Your task to perform on an android device: turn off notifications settings in the gmail app Image 0: 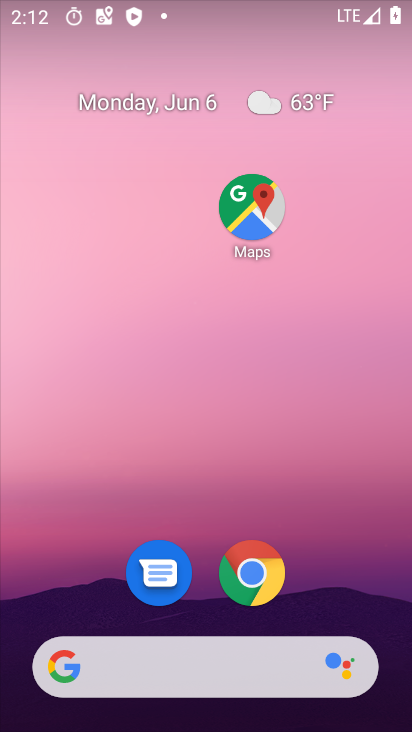
Step 0: press home button
Your task to perform on an android device: turn off notifications settings in the gmail app Image 1: 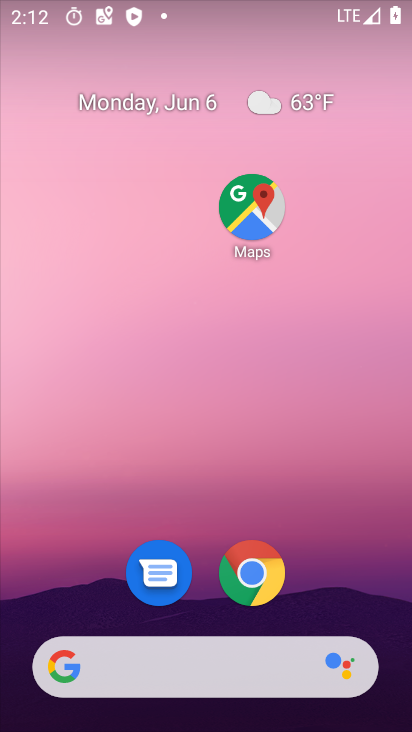
Step 1: drag from (18, 601) to (107, 171)
Your task to perform on an android device: turn off notifications settings in the gmail app Image 2: 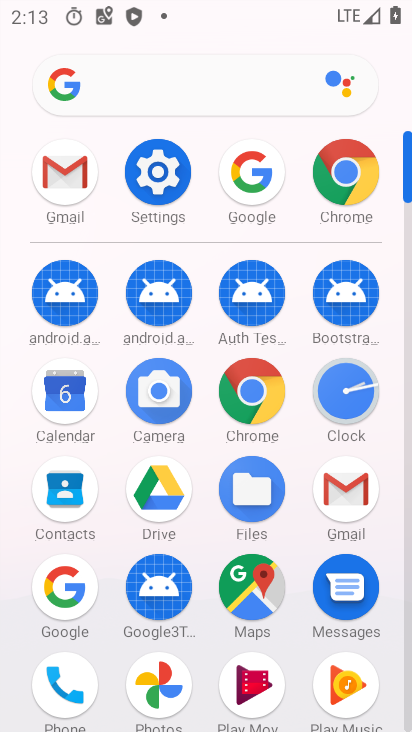
Step 2: click (345, 500)
Your task to perform on an android device: turn off notifications settings in the gmail app Image 3: 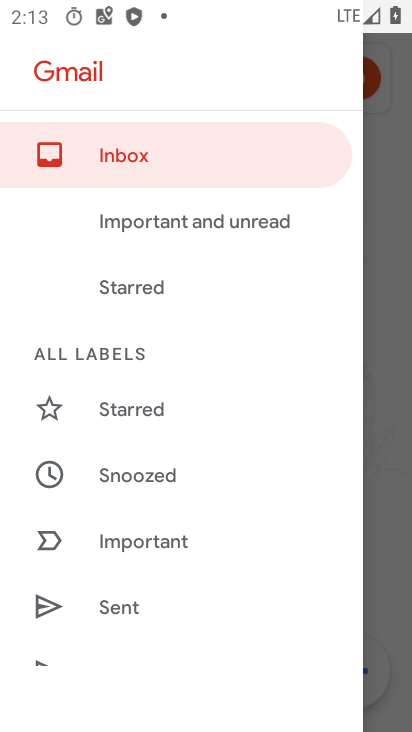
Step 3: drag from (4, 640) to (158, 183)
Your task to perform on an android device: turn off notifications settings in the gmail app Image 4: 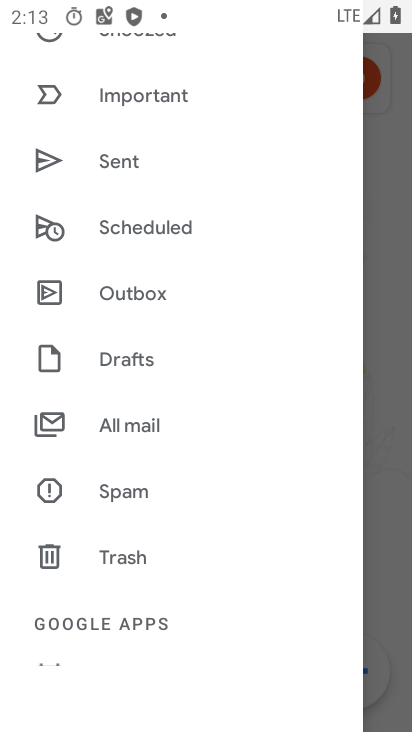
Step 4: drag from (1, 678) to (193, 202)
Your task to perform on an android device: turn off notifications settings in the gmail app Image 5: 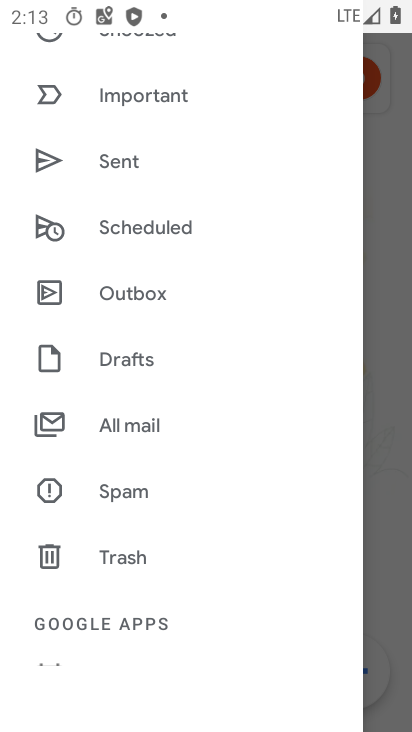
Step 5: drag from (6, 540) to (236, 181)
Your task to perform on an android device: turn off notifications settings in the gmail app Image 6: 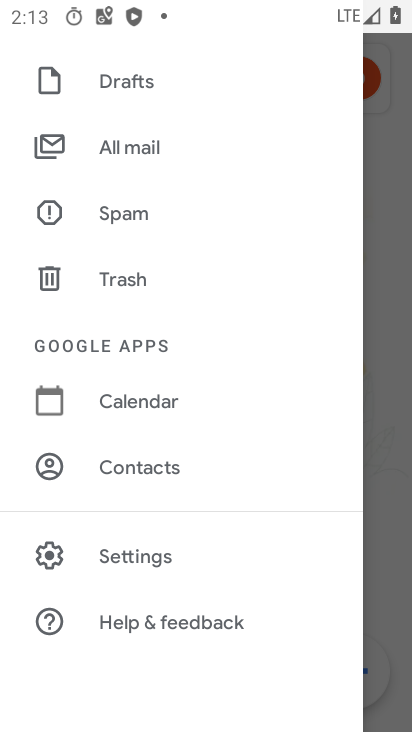
Step 6: click (92, 558)
Your task to perform on an android device: turn off notifications settings in the gmail app Image 7: 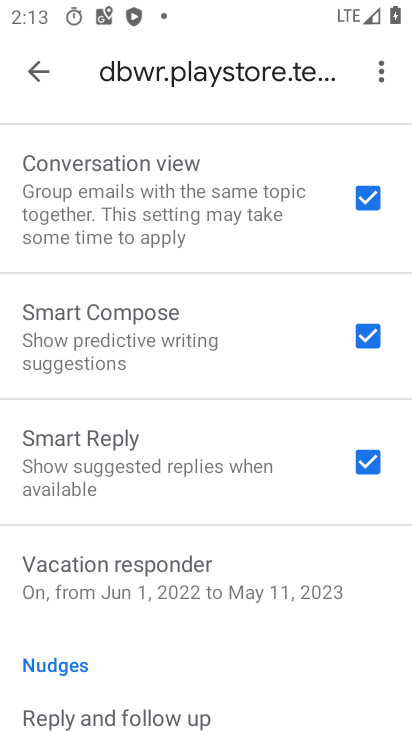
Step 7: drag from (0, 607) to (163, 173)
Your task to perform on an android device: turn off notifications settings in the gmail app Image 8: 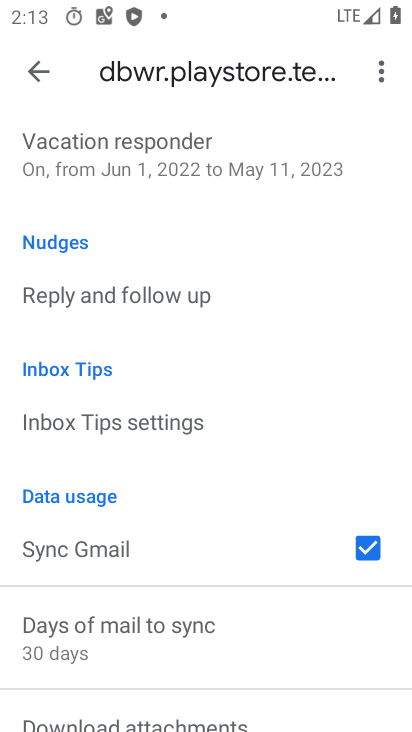
Step 8: drag from (11, 501) to (185, 163)
Your task to perform on an android device: turn off notifications settings in the gmail app Image 9: 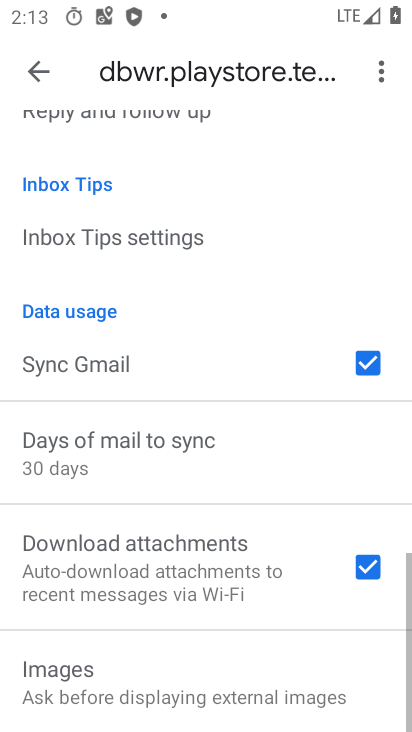
Step 9: drag from (147, 216) to (292, 724)
Your task to perform on an android device: turn off notifications settings in the gmail app Image 10: 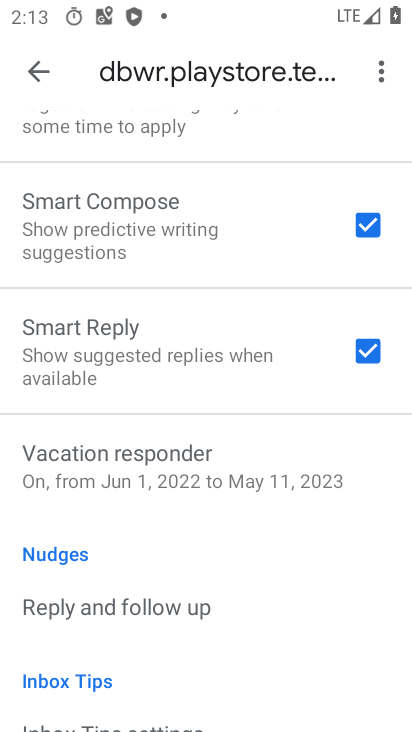
Step 10: press back button
Your task to perform on an android device: turn off notifications settings in the gmail app Image 11: 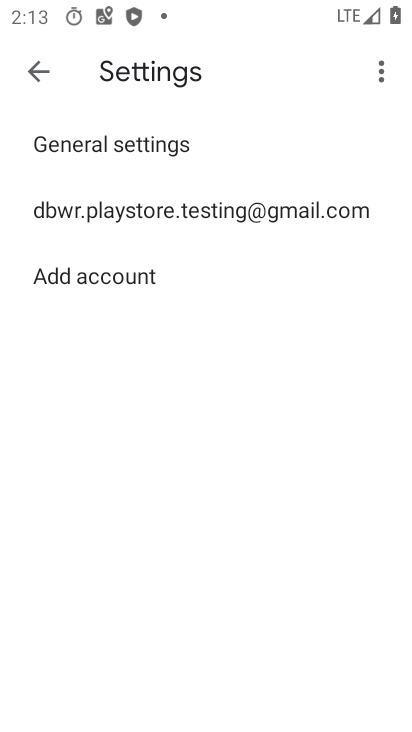
Step 11: click (49, 224)
Your task to perform on an android device: turn off notifications settings in the gmail app Image 12: 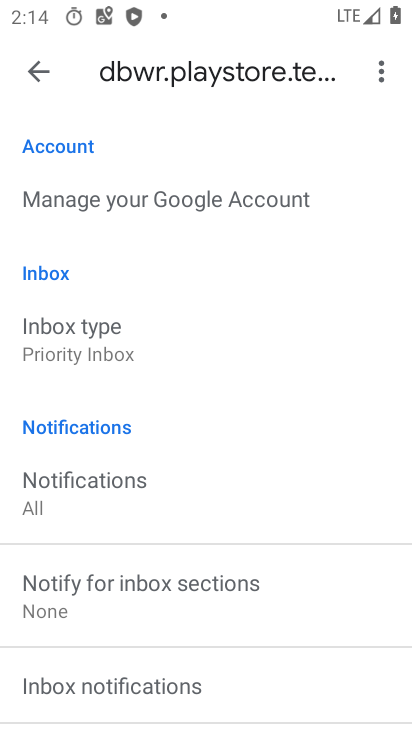
Step 12: drag from (20, 622) to (231, 176)
Your task to perform on an android device: turn off notifications settings in the gmail app Image 13: 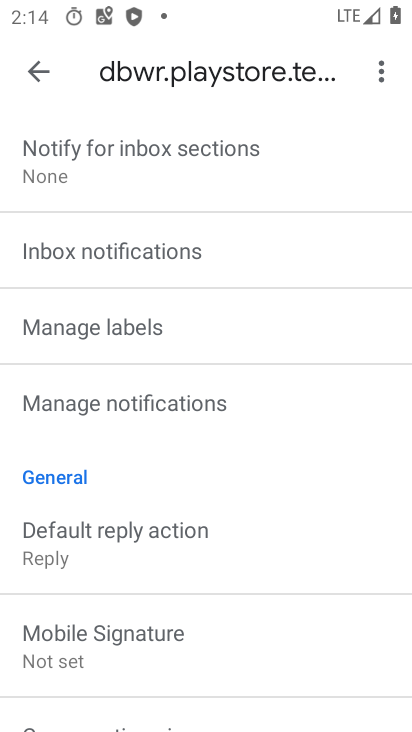
Step 13: click (68, 391)
Your task to perform on an android device: turn off notifications settings in the gmail app Image 14: 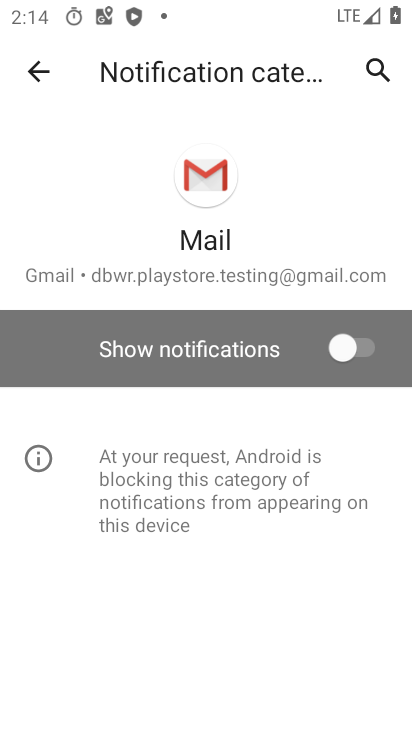
Step 14: task complete